Your task to perform on an android device: turn off data saver in the chrome app Image 0: 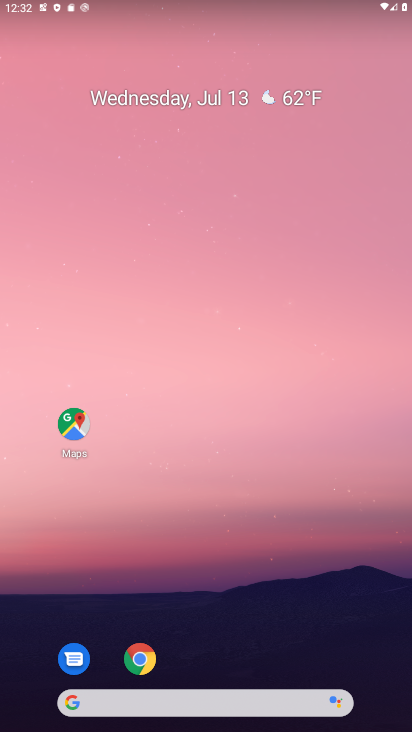
Step 0: drag from (224, 701) to (259, 222)
Your task to perform on an android device: turn off data saver in the chrome app Image 1: 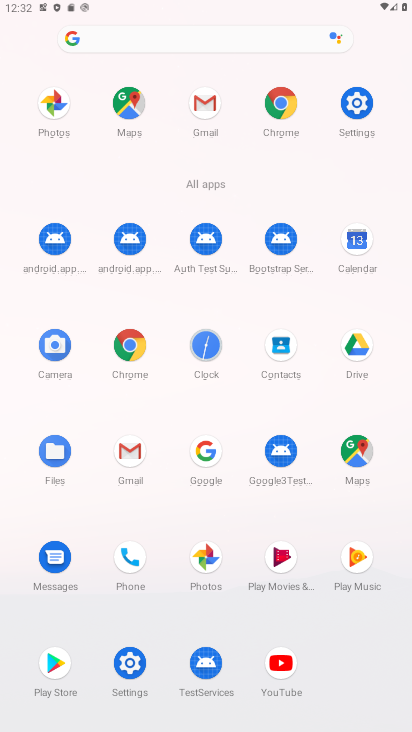
Step 1: click (131, 342)
Your task to perform on an android device: turn off data saver in the chrome app Image 2: 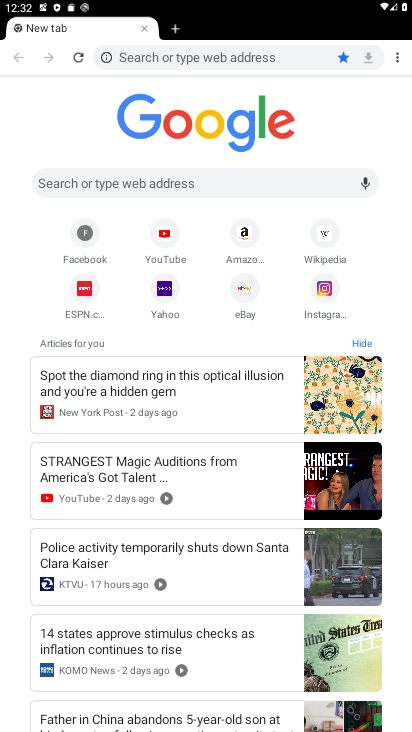
Step 2: click (399, 62)
Your task to perform on an android device: turn off data saver in the chrome app Image 3: 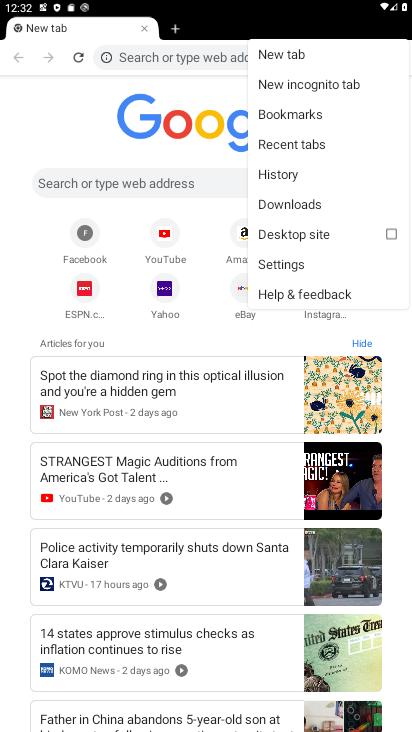
Step 3: click (276, 262)
Your task to perform on an android device: turn off data saver in the chrome app Image 4: 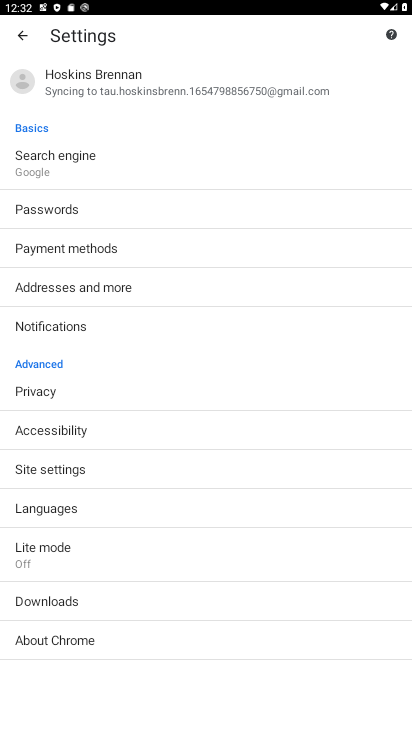
Step 4: click (45, 544)
Your task to perform on an android device: turn off data saver in the chrome app Image 5: 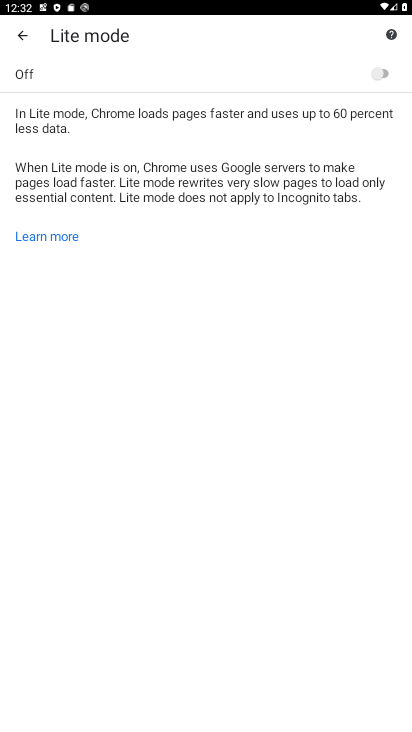
Step 5: task complete